Your task to perform on an android device: Go to Amazon Image 0: 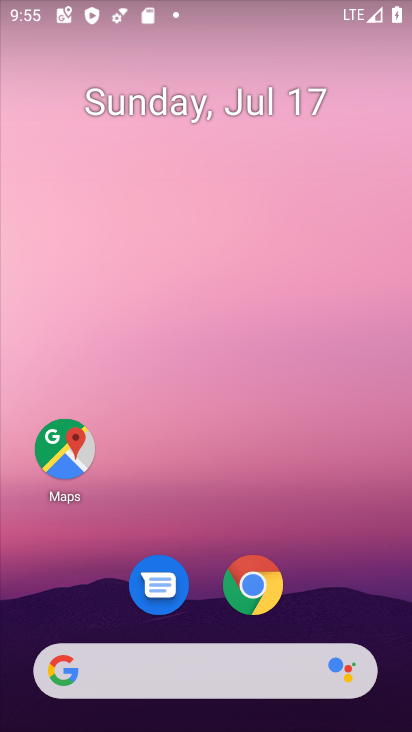
Step 0: click (263, 583)
Your task to perform on an android device: Go to Amazon Image 1: 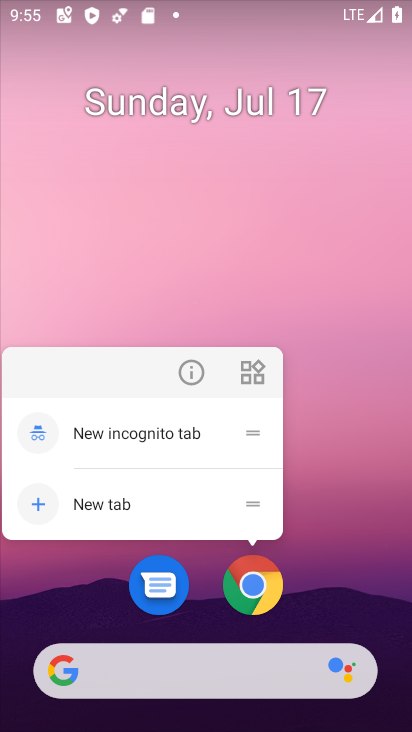
Step 1: click (263, 586)
Your task to perform on an android device: Go to Amazon Image 2: 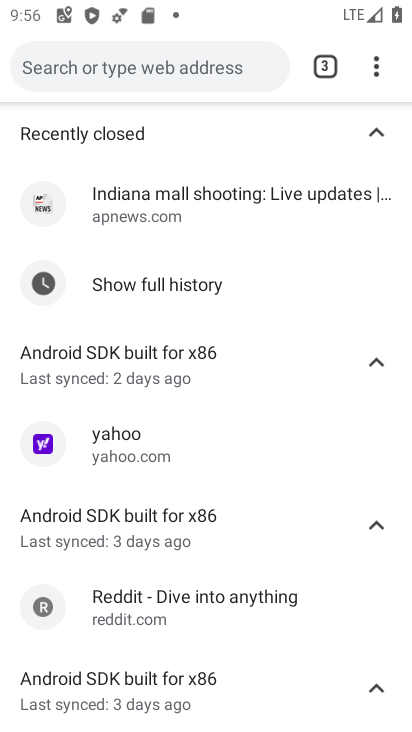
Step 2: click (371, 71)
Your task to perform on an android device: Go to Amazon Image 3: 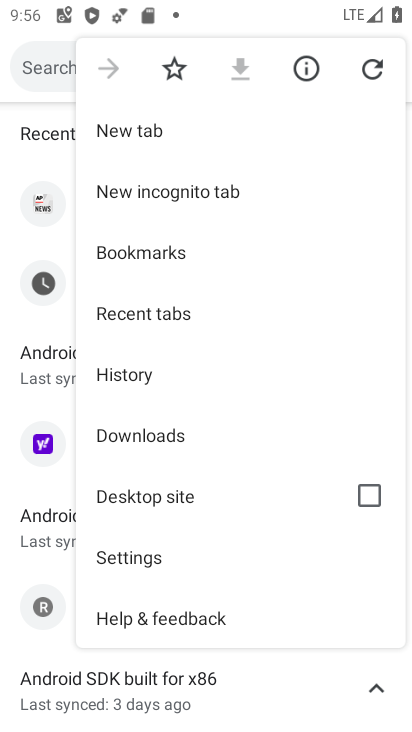
Step 3: click (265, 136)
Your task to perform on an android device: Go to Amazon Image 4: 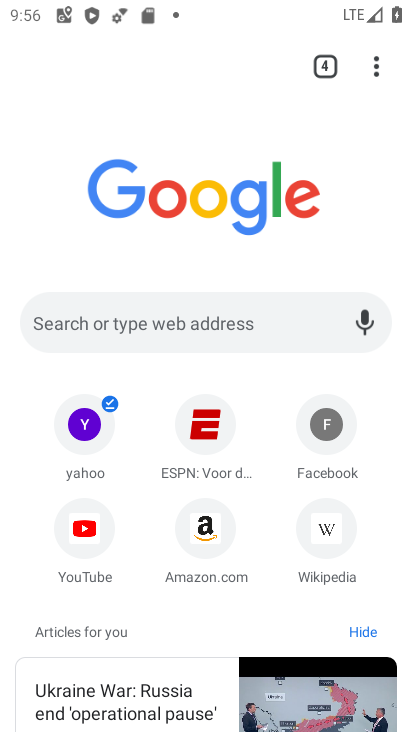
Step 4: click (204, 521)
Your task to perform on an android device: Go to Amazon Image 5: 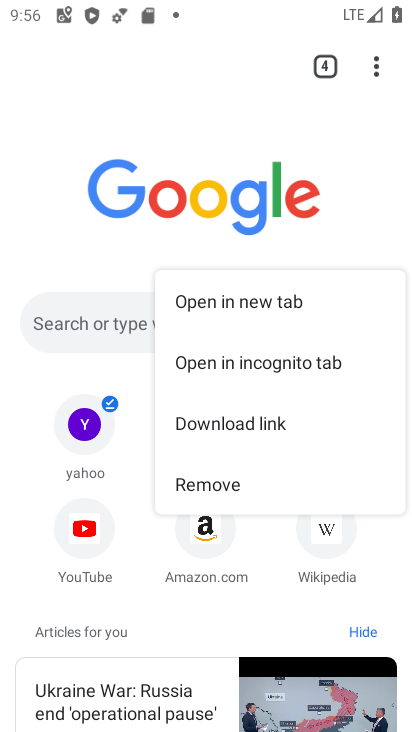
Step 5: click (204, 521)
Your task to perform on an android device: Go to Amazon Image 6: 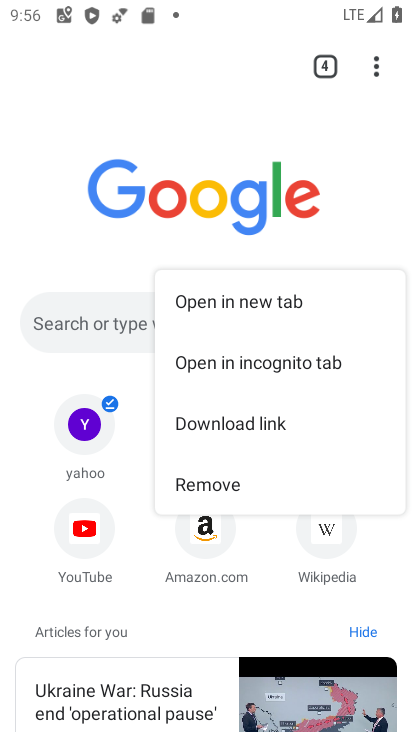
Step 6: click (205, 531)
Your task to perform on an android device: Go to Amazon Image 7: 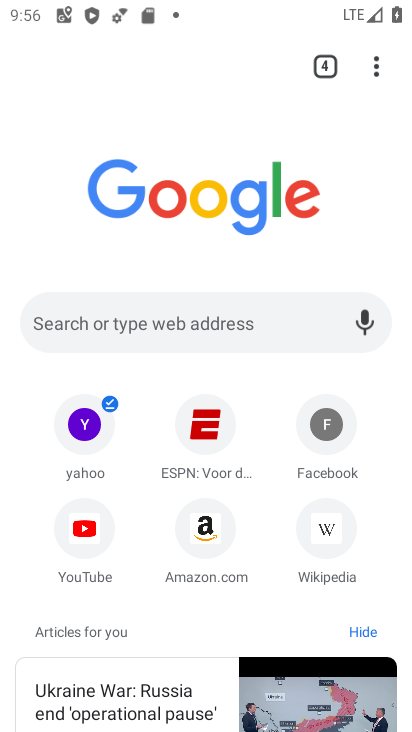
Step 7: click (205, 531)
Your task to perform on an android device: Go to Amazon Image 8: 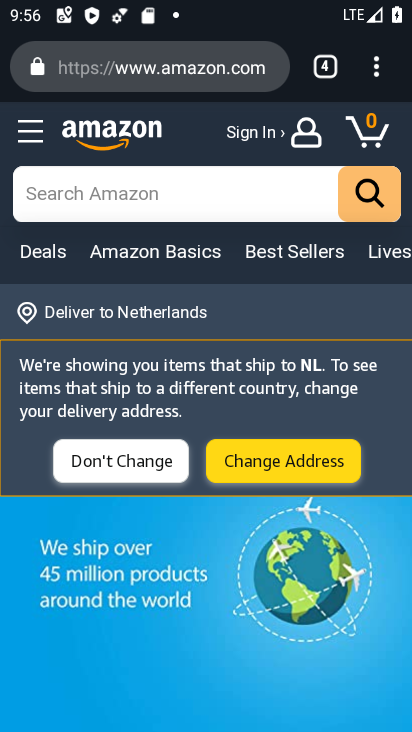
Step 8: task complete